Your task to perform on an android device: Play the last video I watched on Youtube Image 0: 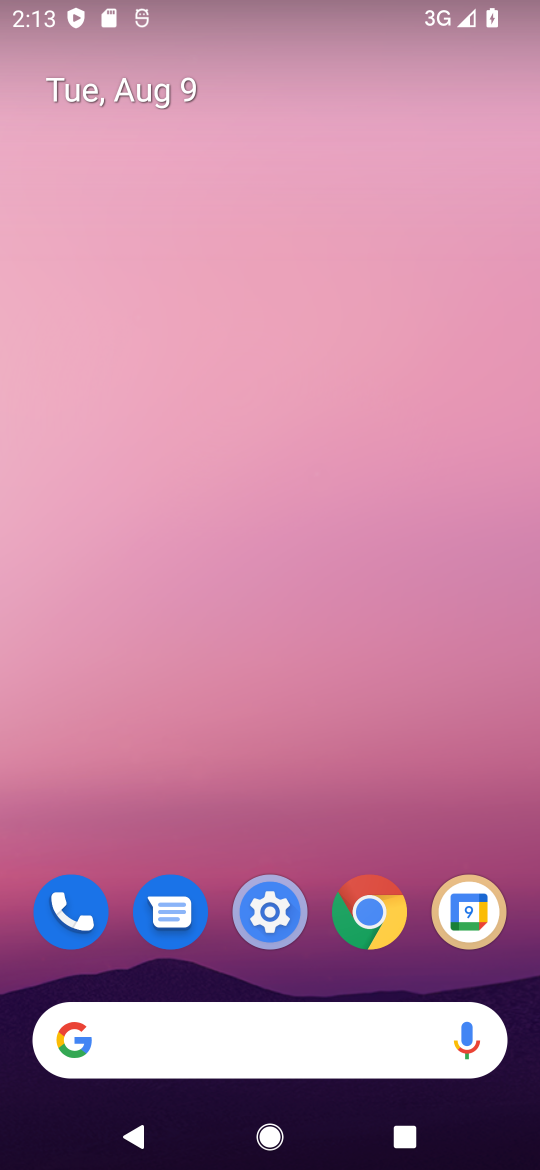
Step 0: drag from (245, 823) to (196, 181)
Your task to perform on an android device: Play the last video I watched on Youtube Image 1: 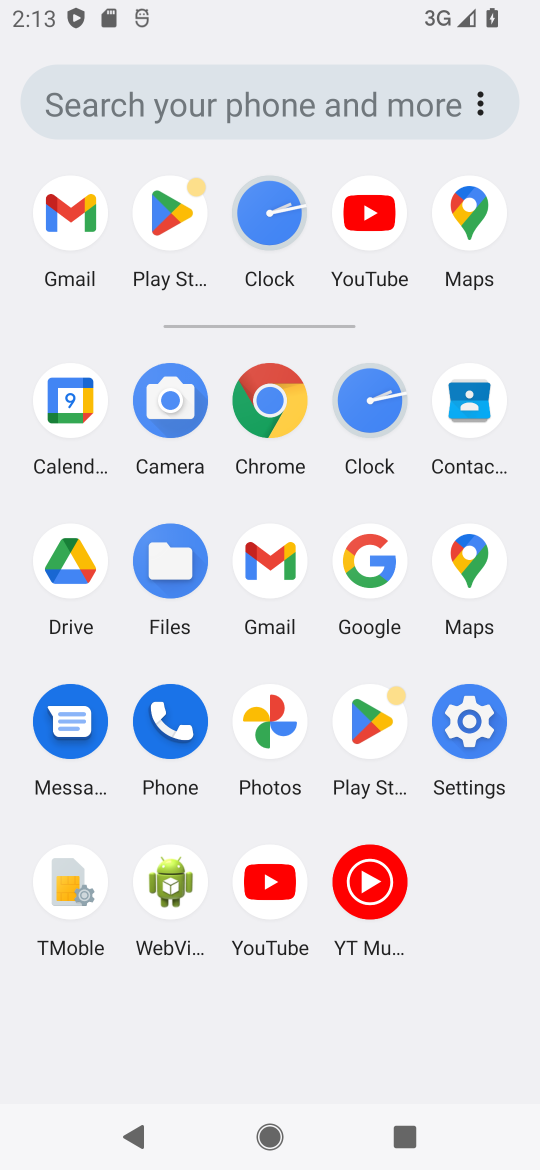
Step 1: click (264, 876)
Your task to perform on an android device: Play the last video I watched on Youtube Image 2: 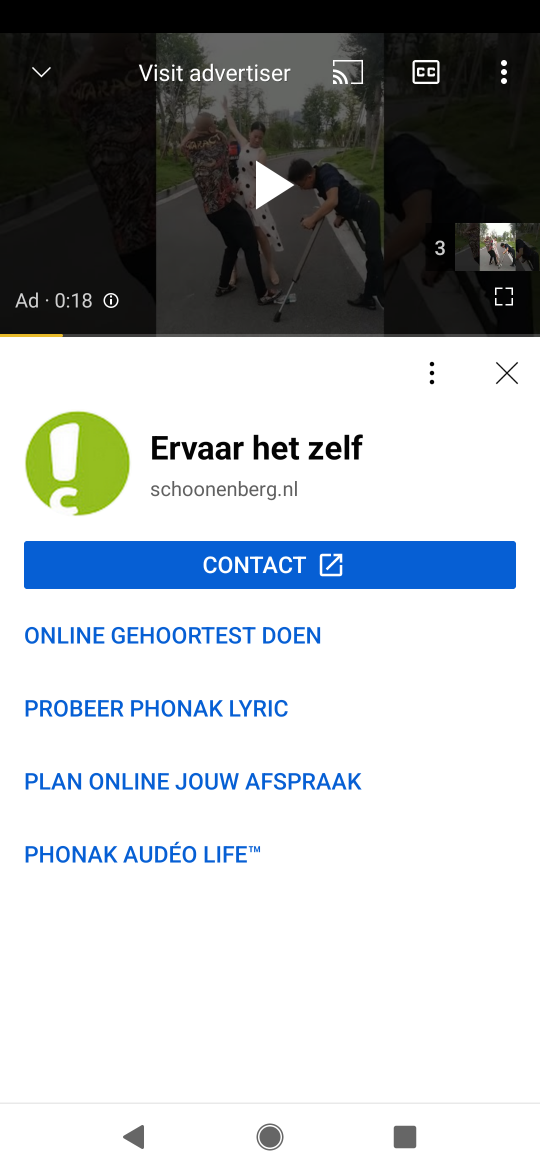
Step 2: click (51, 63)
Your task to perform on an android device: Play the last video I watched on Youtube Image 3: 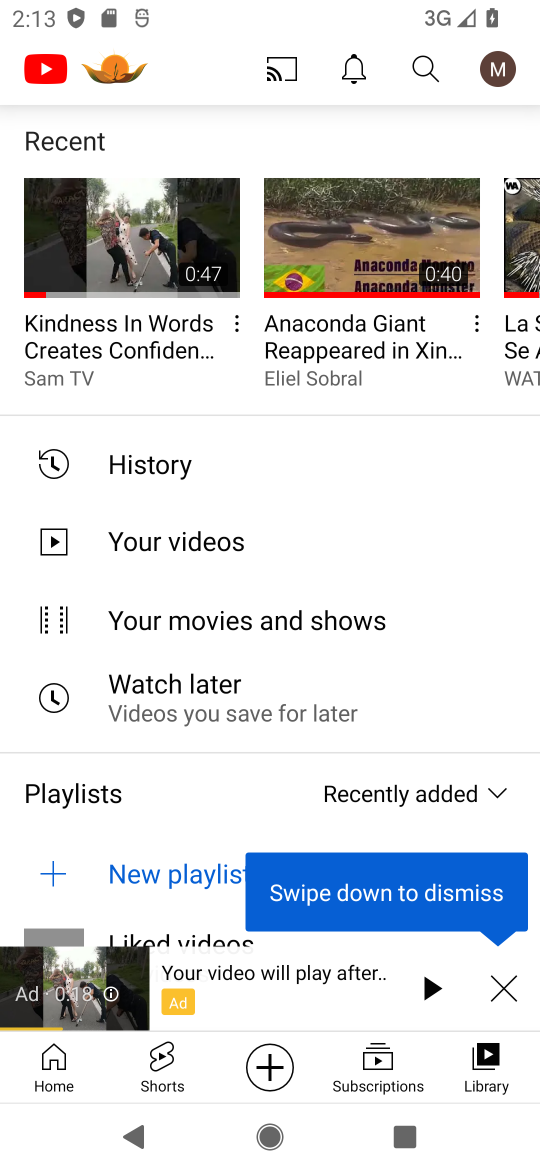
Step 3: click (112, 275)
Your task to perform on an android device: Play the last video I watched on Youtube Image 4: 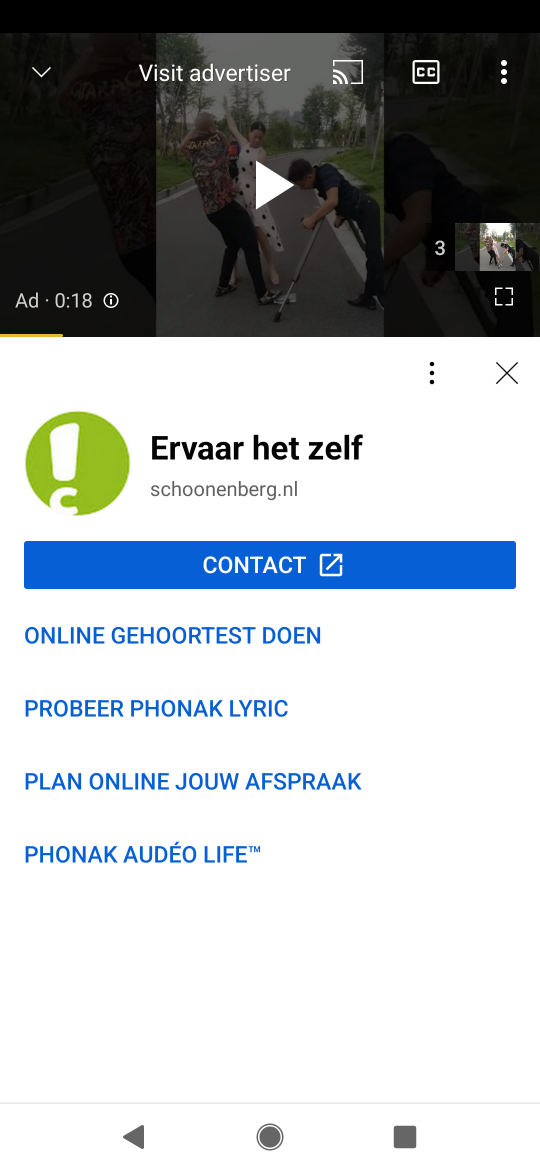
Step 4: task complete